Your task to perform on an android device: turn on notifications settings in the gmail app Image 0: 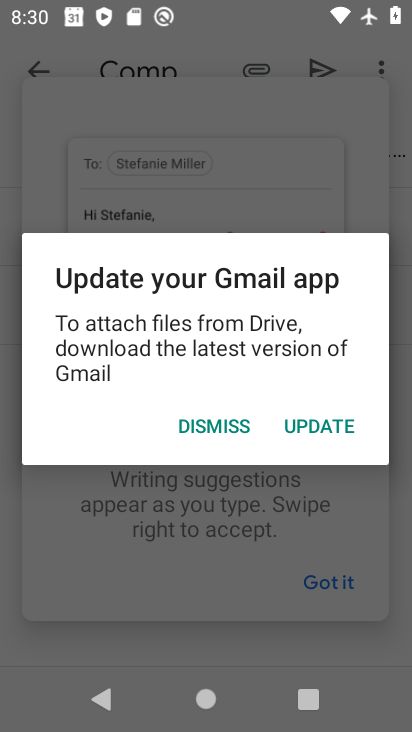
Step 0: press home button
Your task to perform on an android device: turn on notifications settings in the gmail app Image 1: 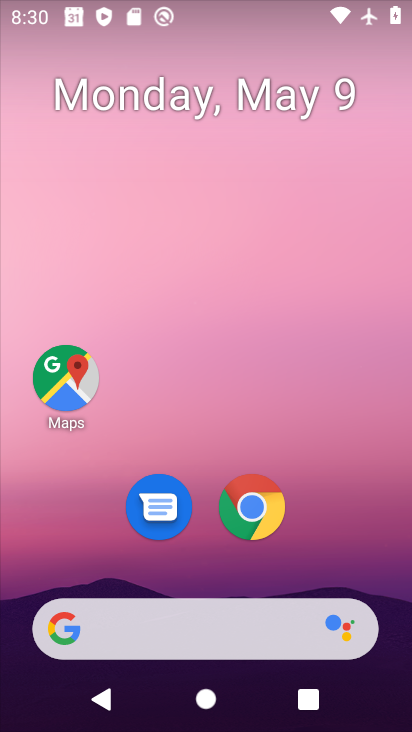
Step 1: drag from (217, 568) to (211, 16)
Your task to perform on an android device: turn on notifications settings in the gmail app Image 2: 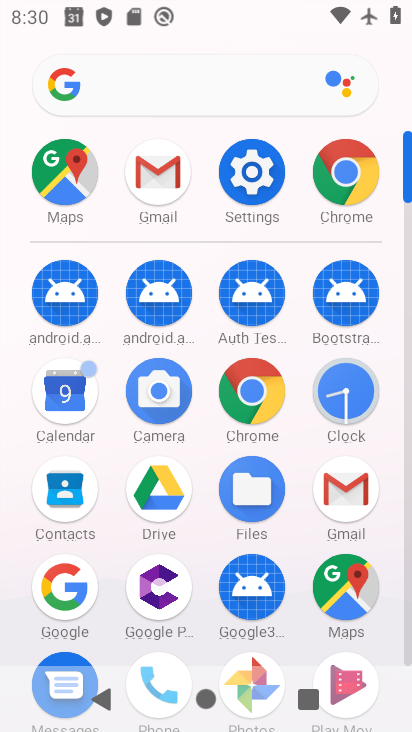
Step 2: click (349, 487)
Your task to perform on an android device: turn on notifications settings in the gmail app Image 3: 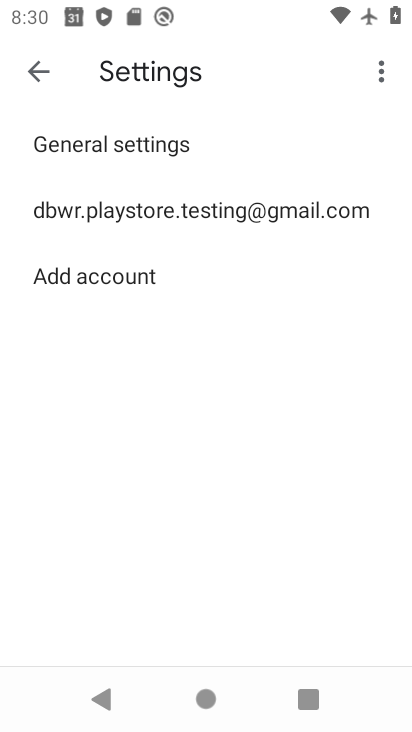
Step 3: click (43, 77)
Your task to perform on an android device: turn on notifications settings in the gmail app Image 4: 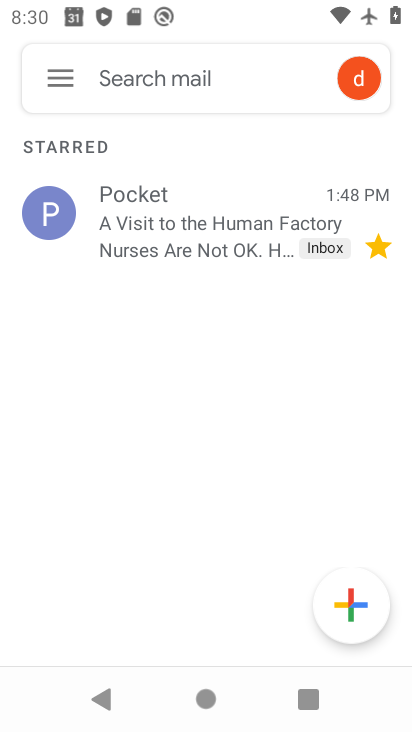
Step 4: click (47, 82)
Your task to perform on an android device: turn on notifications settings in the gmail app Image 5: 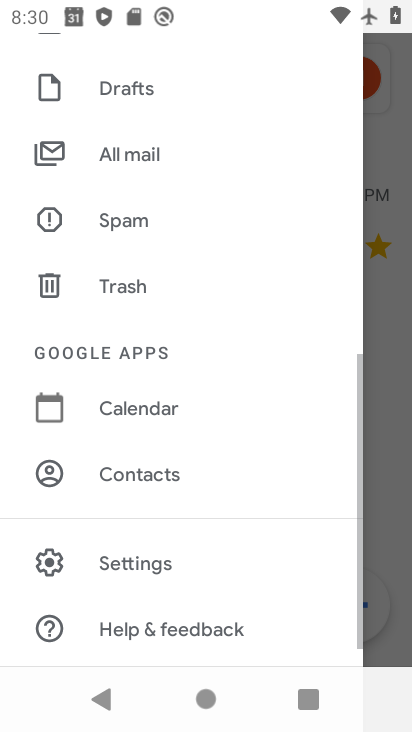
Step 5: click (113, 572)
Your task to perform on an android device: turn on notifications settings in the gmail app Image 6: 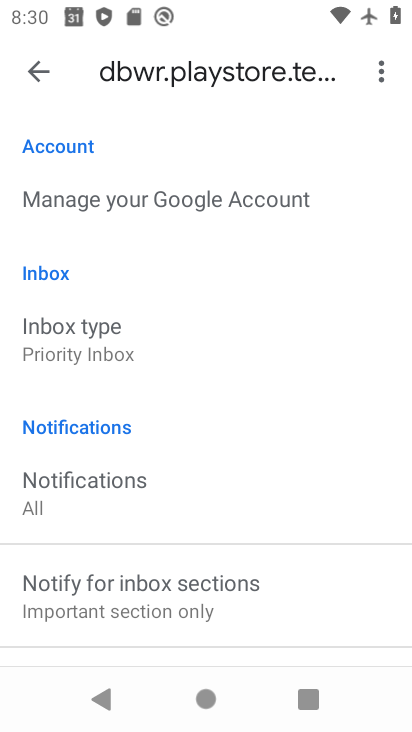
Step 6: drag from (108, 222) to (132, 369)
Your task to perform on an android device: turn on notifications settings in the gmail app Image 7: 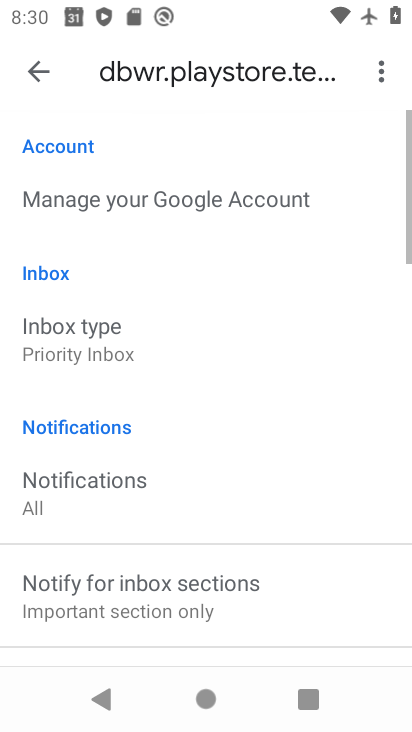
Step 7: click (46, 83)
Your task to perform on an android device: turn on notifications settings in the gmail app Image 8: 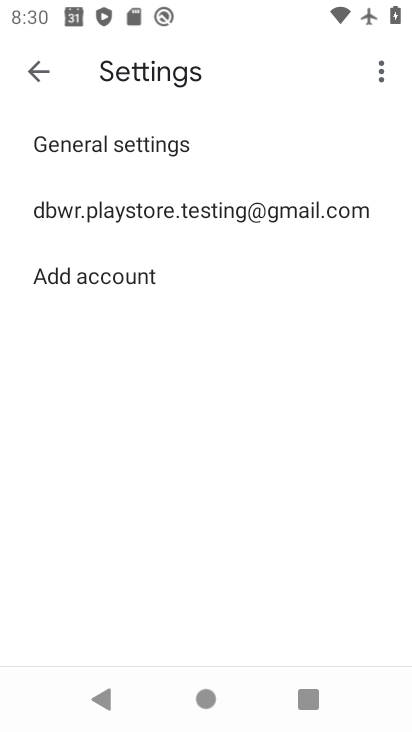
Step 8: click (103, 148)
Your task to perform on an android device: turn on notifications settings in the gmail app Image 9: 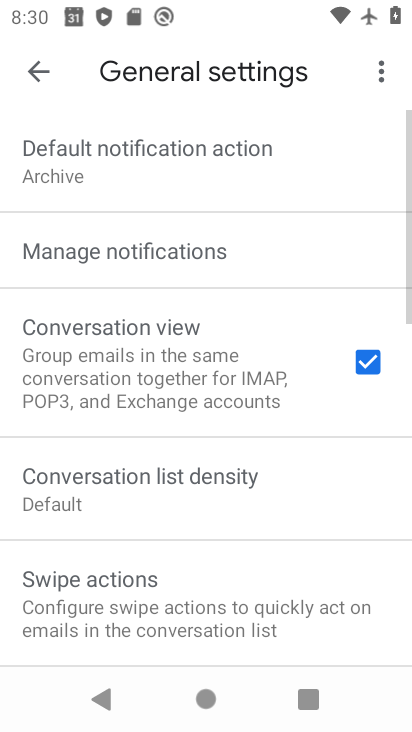
Step 9: click (138, 265)
Your task to perform on an android device: turn on notifications settings in the gmail app Image 10: 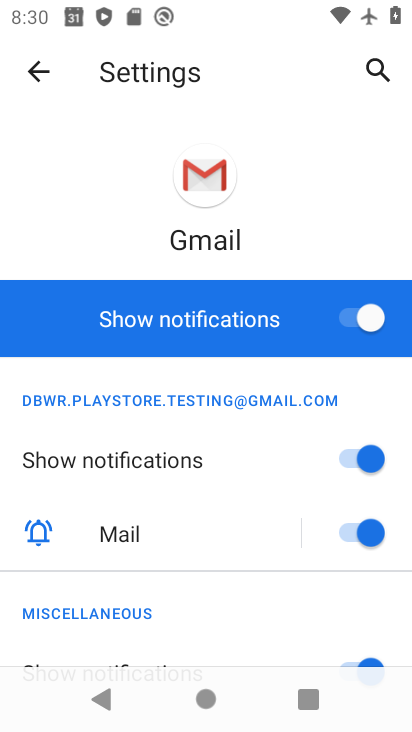
Step 10: task complete